Your task to perform on an android device: open chrome privacy settings Image 0: 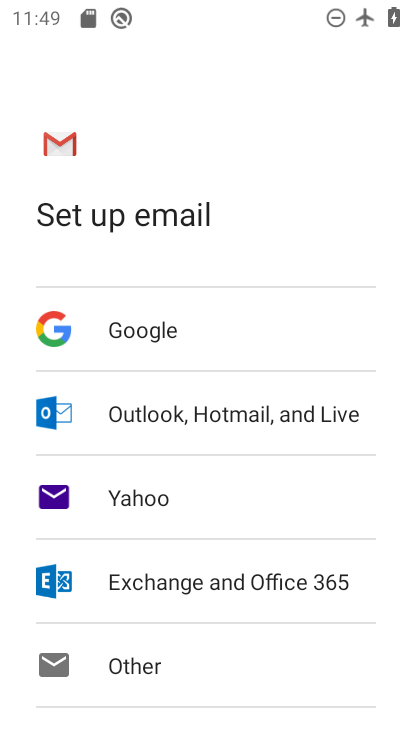
Step 0: press home button
Your task to perform on an android device: open chrome privacy settings Image 1: 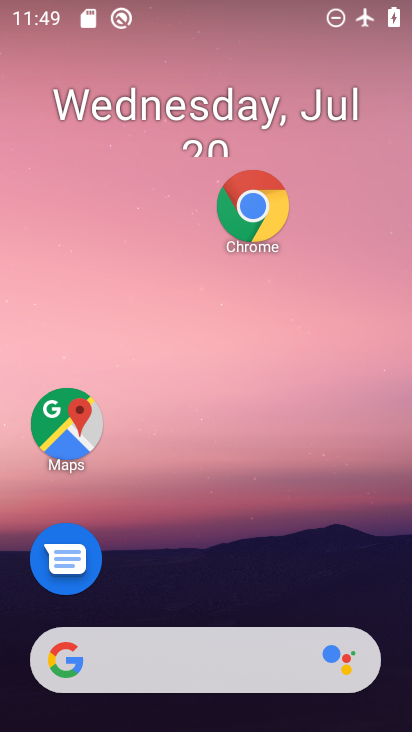
Step 1: drag from (213, 558) to (196, 179)
Your task to perform on an android device: open chrome privacy settings Image 2: 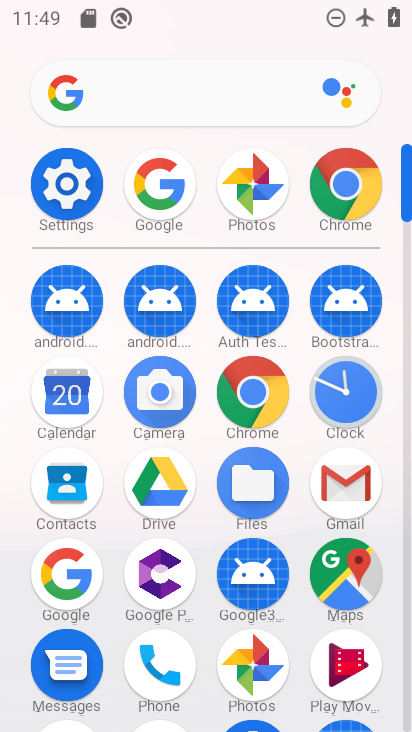
Step 2: click (53, 213)
Your task to perform on an android device: open chrome privacy settings Image 3: 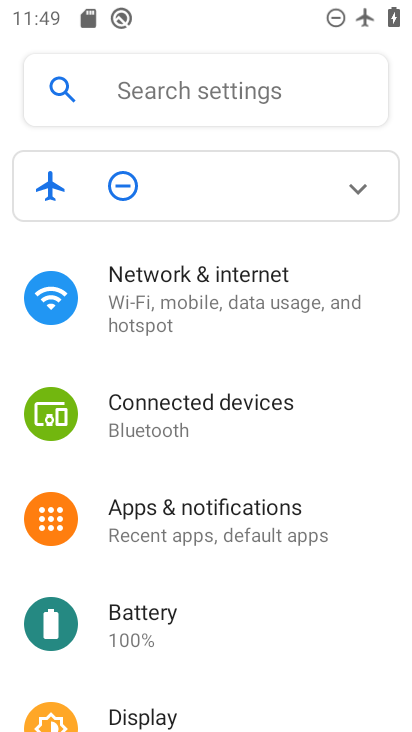
Step 3: press home button
Your task to perform on an android device: open chrome privacy settings Image 4: 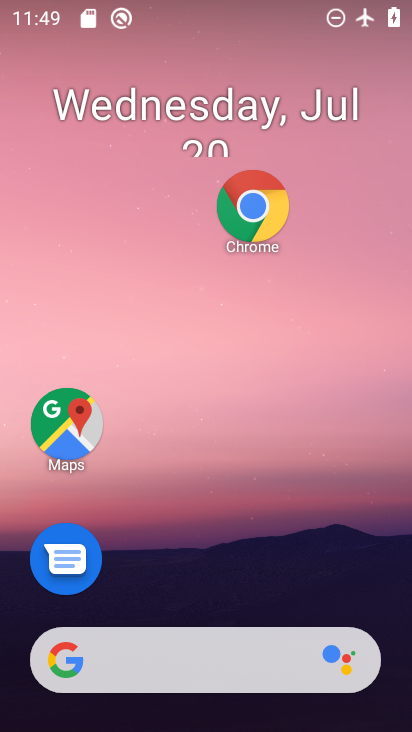
Step 4: drag from (204, 624) to (263, 251)
Your task to perform on an android device: open chrome privacy settings Image 5: 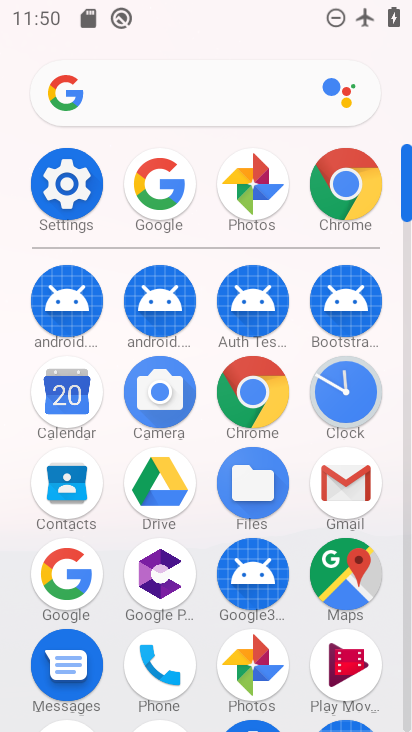
Step 5: click (345, 214)
Your task to perform on an android device: open chrome privacy settings Image 6: 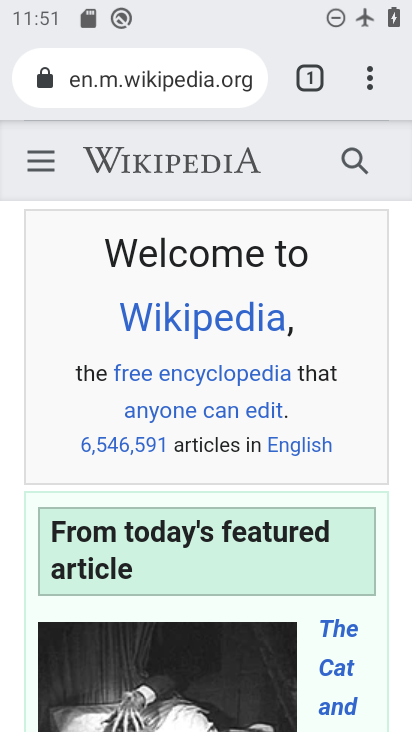
Step 6: click (363, 79)
Your task to perform on an android device: open chrome privacy settings Image 7: 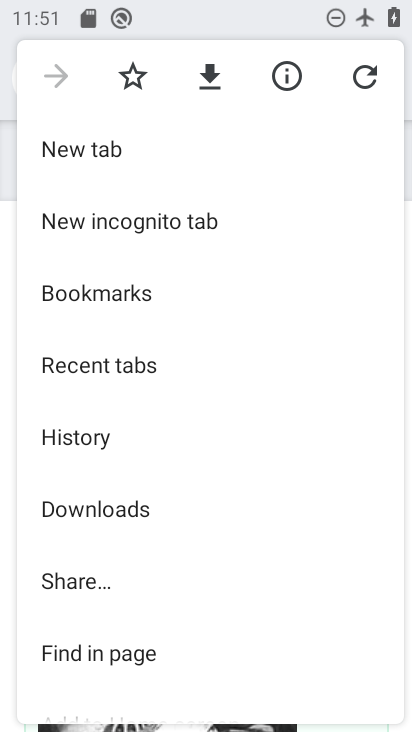
Step 7: drag from (183, 387) to (221, 113)
Your task to perform on an android device: open chrome privacy settings Image 8: 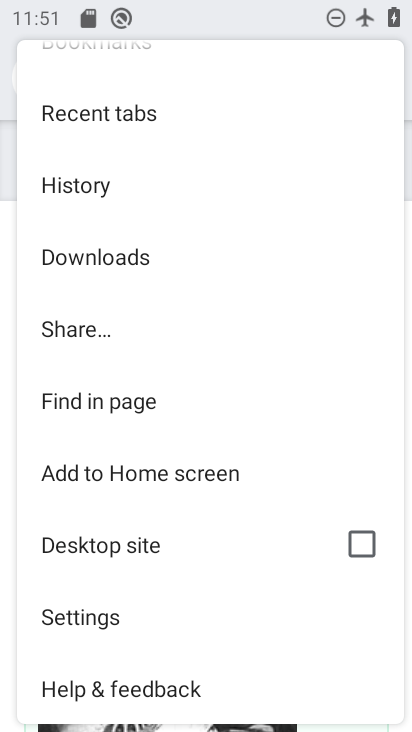
Step 8: click (110, 615)
Your task to perform on an android device: open chrome privacy settings Image 9: 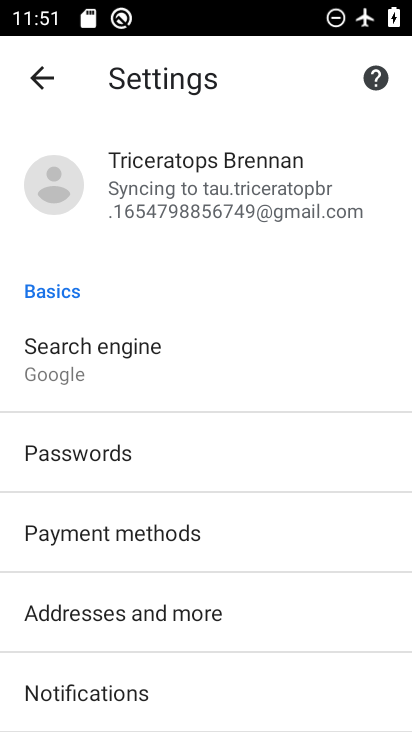
Step 9: drag from (145, 547) to (167, 194)
Your task to perform on an android device: open chrome privacy settings Image 10: 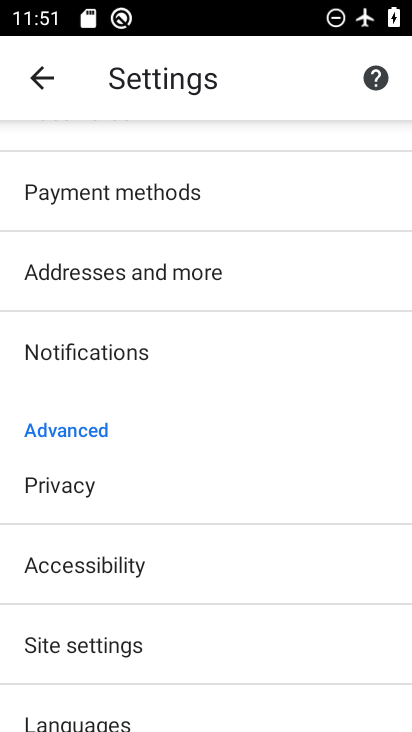
Step 10: click (112, 493)
Your task to perform on an android device: open chrome privacy settings Image 11: 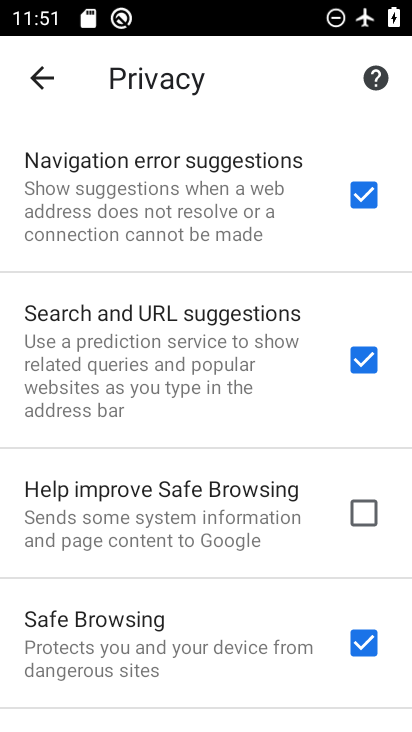
Step 11: task complete